Your task to perform on an android device: Open internet settings Image 0: 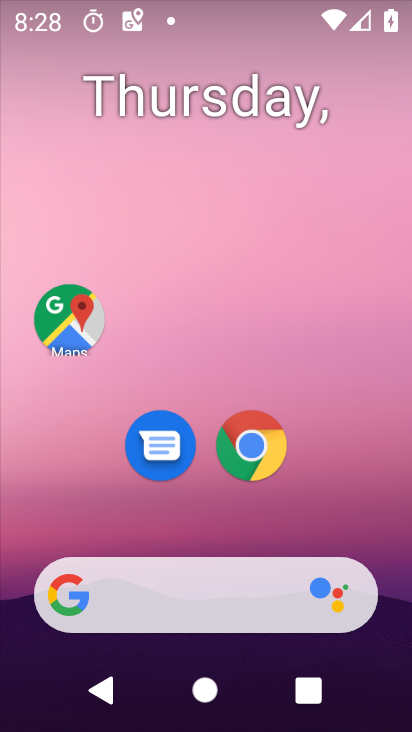
Step 0: drag from (44, 664) to (279, 213)
Your task to perform on an android device: Open internet settings Image 1: 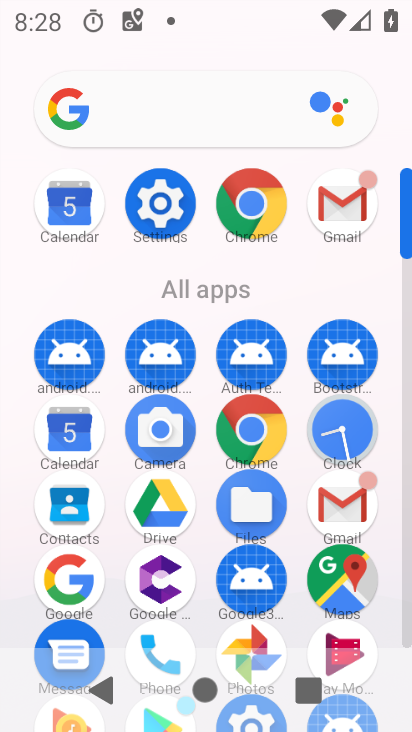
Step 1: drag from (234, 599) to (266, 261)
Your task to perform on an android device: Open internet settings Image 2: 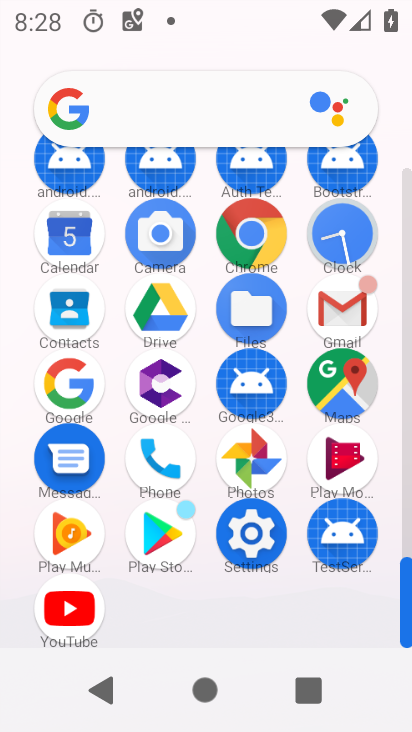
Step 2: click (252, 563)
Your task to perform on an android device: Open internet settings Image 3: 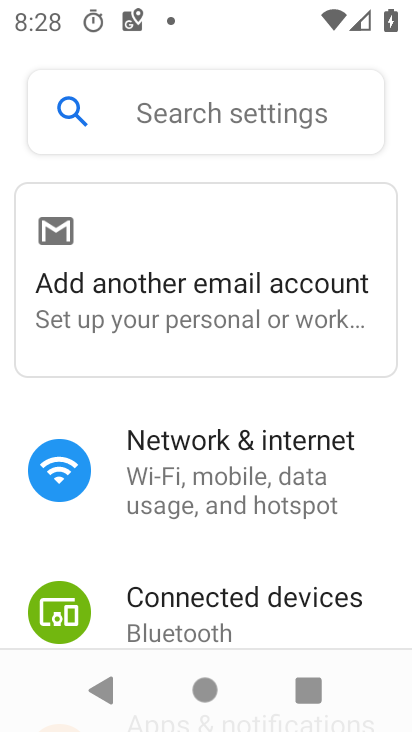
Step 3: click (254, 440)
Your task to perform on an android device: Open internet settings Image 4: 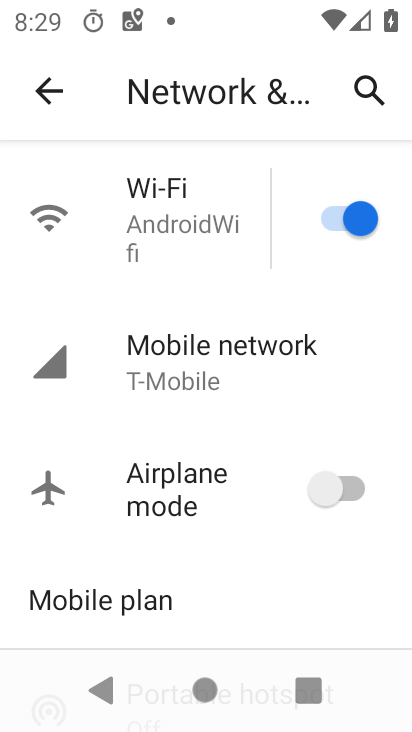
Step 4: task complete